Your task to perform on an android device: set an alarm Image 0: 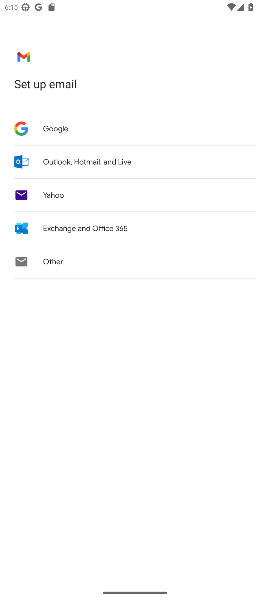
Step 0: press home button
Your task to perform on an android device: set an alarm Image 1: 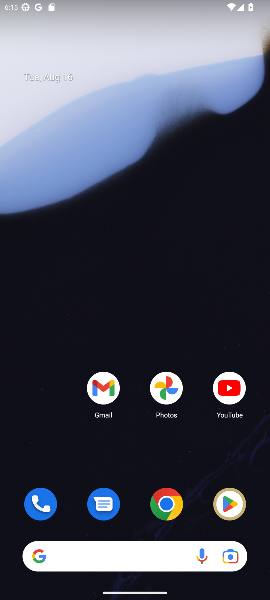
Step 1: drag from (27, 578) to (239, 224)
Your task to perform on an android device: set an alarm Image 2: 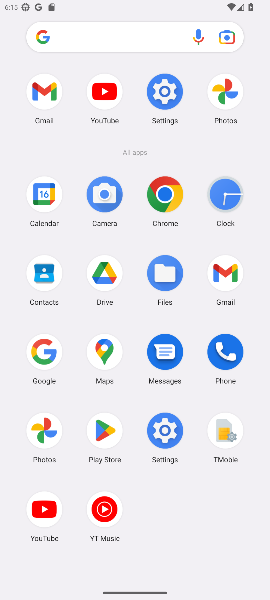
Step 2: click (221, 193)
Your task to perform on an android device: set an alarm Image 3: 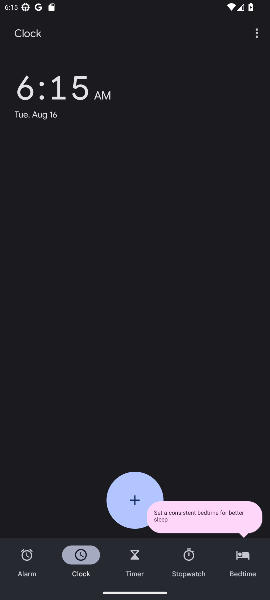
Step 3: click (28, 570)
Your task to perform on an android device: set an alarm Image 4: 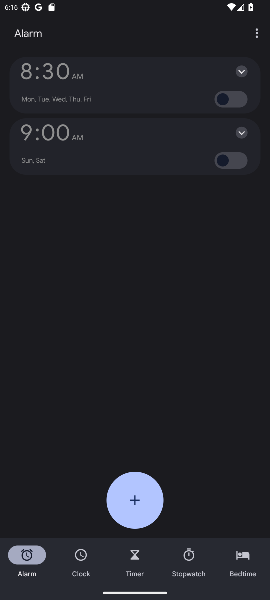
Step 4: click (221, 99)
Your task to perform on an android device: set an alarm Image 5: 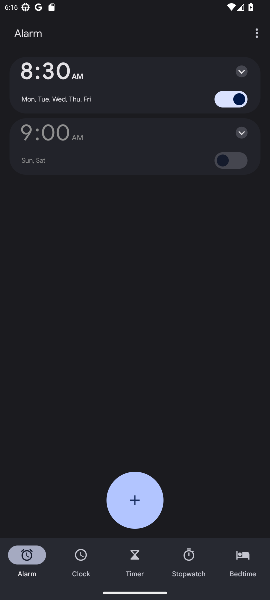
Step 5: task complete